Your task to perform on an android device: Open the phone app and click the voicemail tab. Image 0: 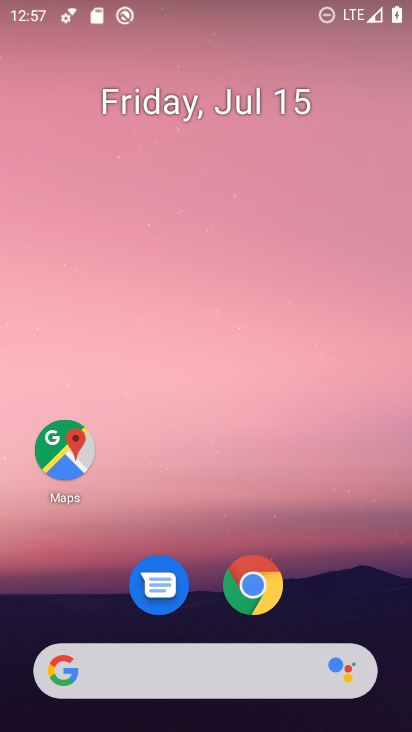
Step 0: drag from (223, 457) to (250, 16)
Your task to perform on an android device: Open the phone app and click the voicemail tab. Image 1: 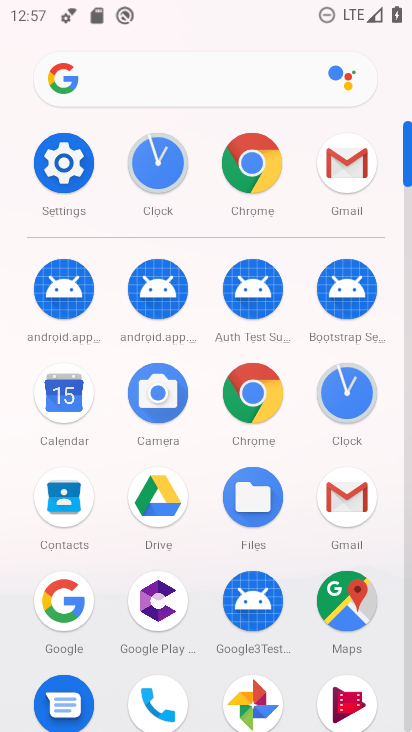
Step 1: click (158, 700)
Your task to perform on an android device: Open the phone app and click the voicemail tab. Image 2: 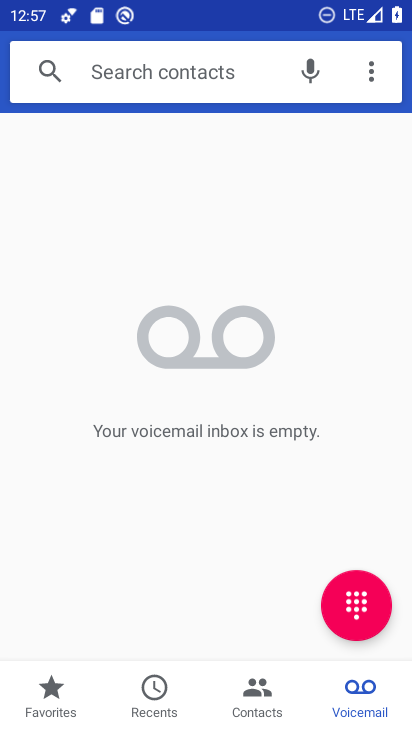
Step 2: click (365, 685)
Your task to perform on an android device: Open the phone app and click the voicemail tab. Image 3: 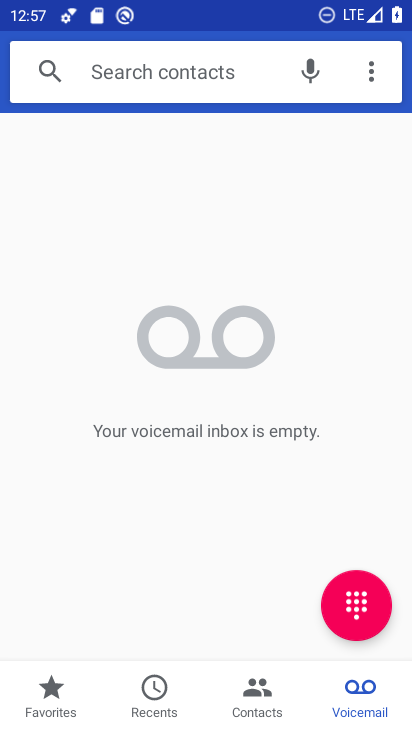
Step 3: task complete